Your task to perform on an android device: Go to Amazon Image 0: 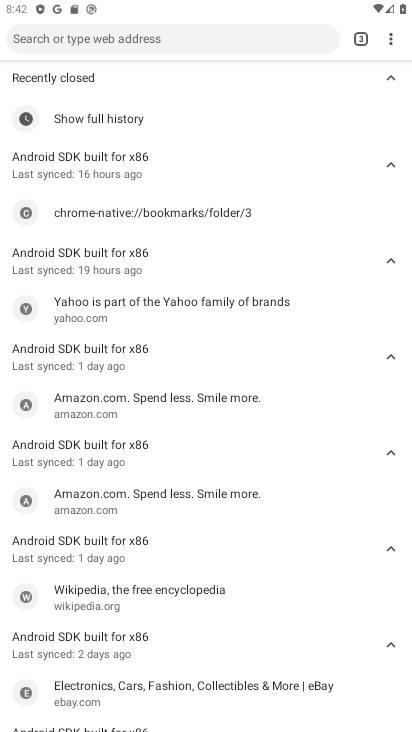
Step 0: click (373, 47)
Your task to perform on an android device: Go to Amazon Image 1: 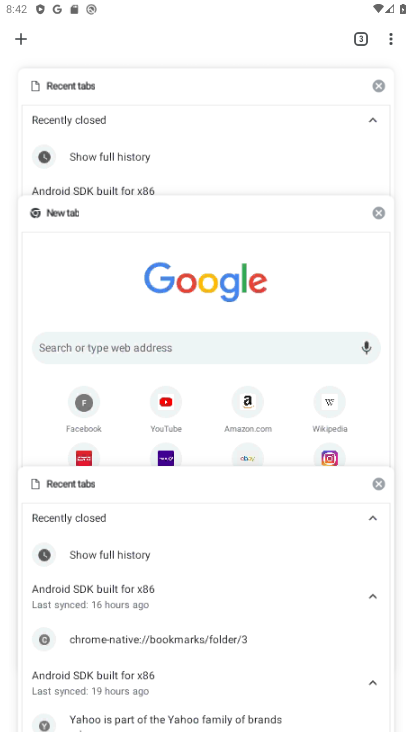
Step 1: click (27, 47)
Your task to perform on an android device: Go to Amazon Image 2: 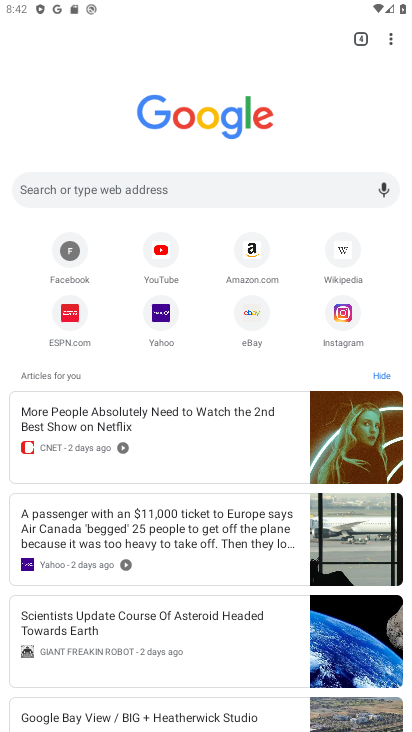
Step 2: click (255, 243)
Your task to perform on an android device: Go to Amazon Image 3: 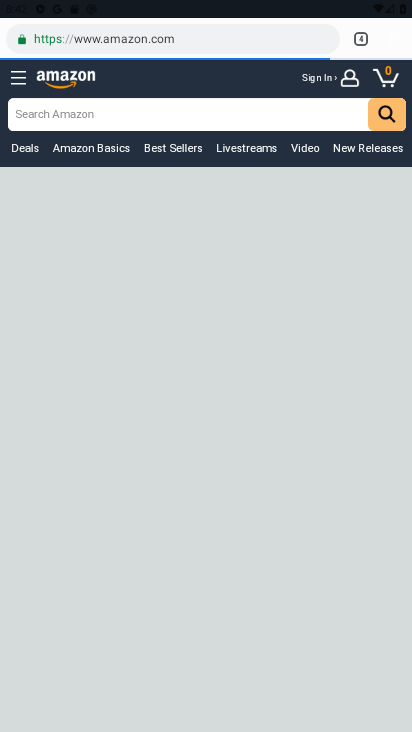
Step 3: click (255, 243)
Your task to perform on an android device: Go to Amazon Image 4: 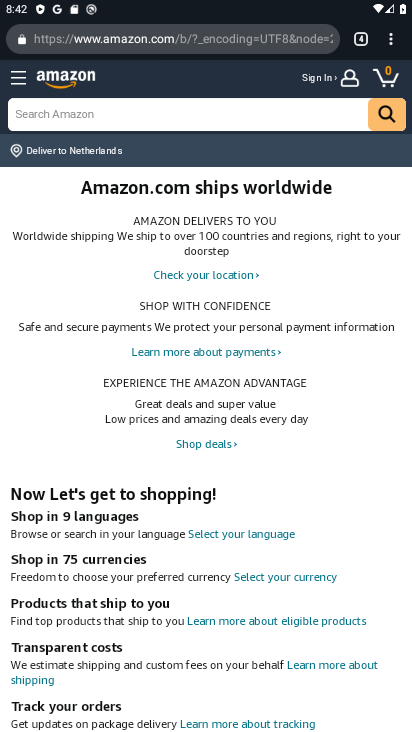
Step 4: task complete